Your task to perform on an android device: Add "alienware aurora" to the cart on bestbuy Image 0: 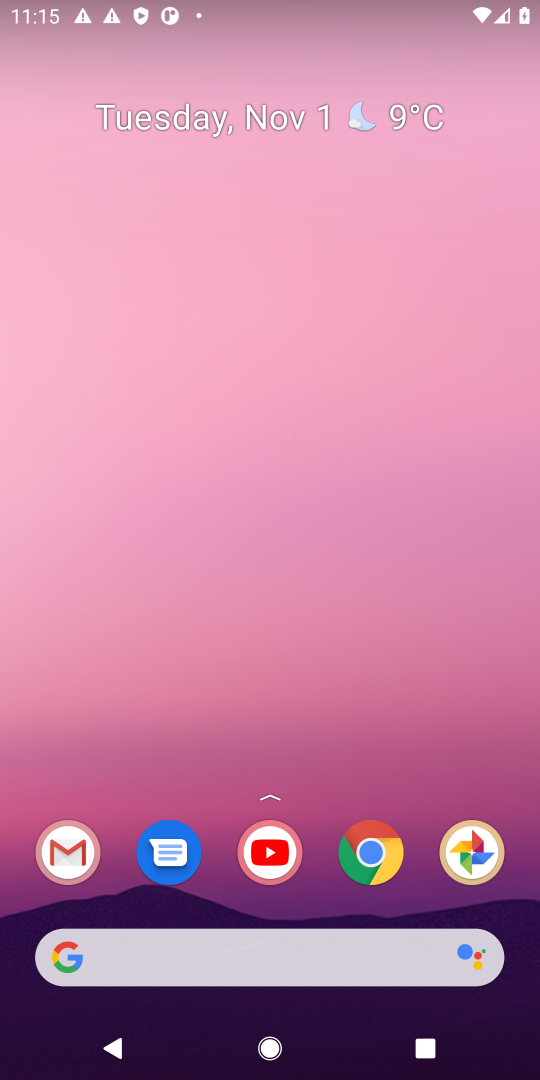
Step 0: drag from (354, 894) to (360, 76)
Your task to perform on an android device: Add "alienware aurora" to the cart on bestbuy Image 1: 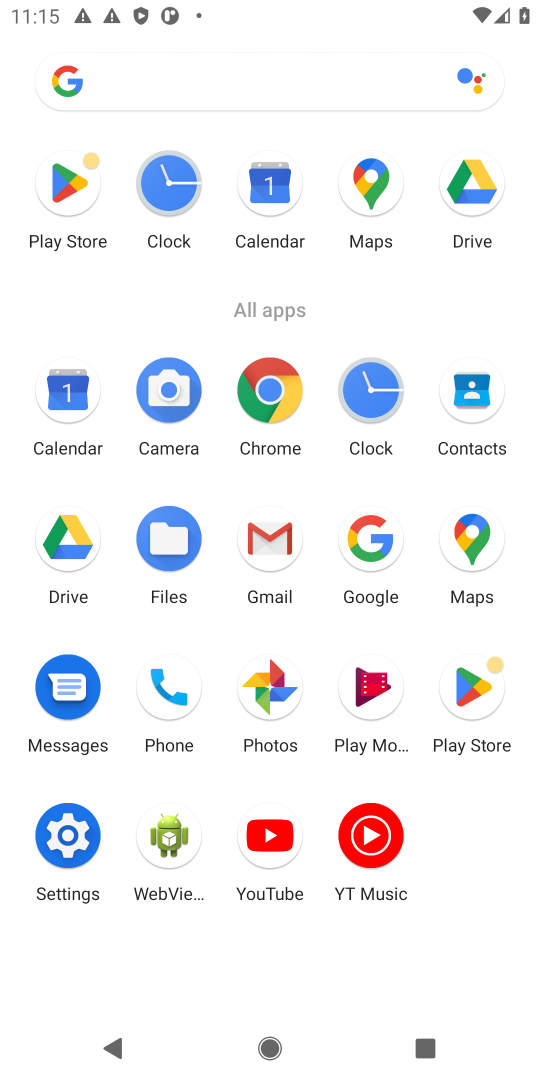
Step 1: click (367, 545)
Your task to perform on an android device: Add "alienware aurora" to the cart on bestbuy Image 2: 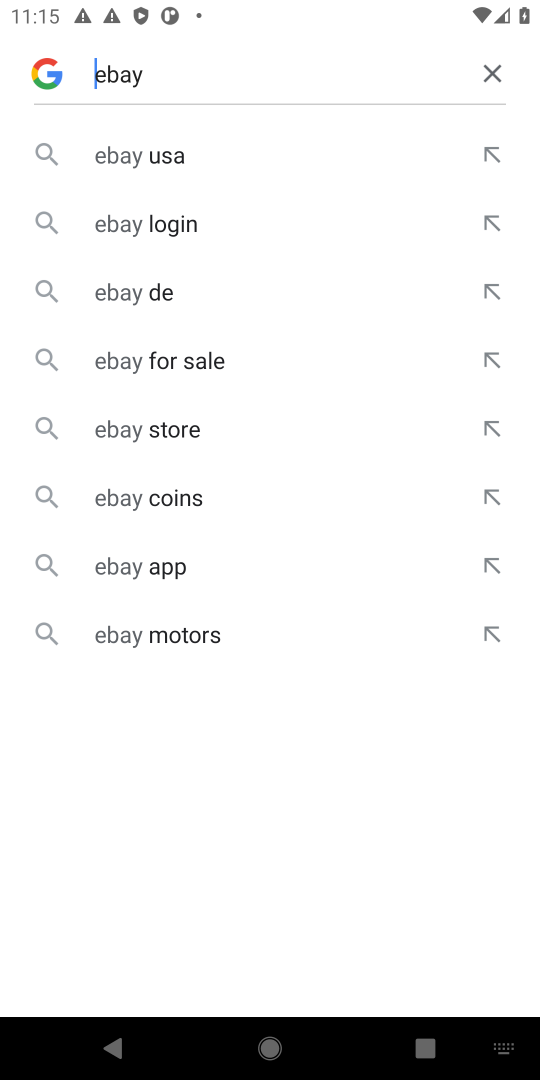
Step 2: click (169, 53)
Your task to perform on an android device: Add "alienware aurora" to the cart on bestbuy Image 3: 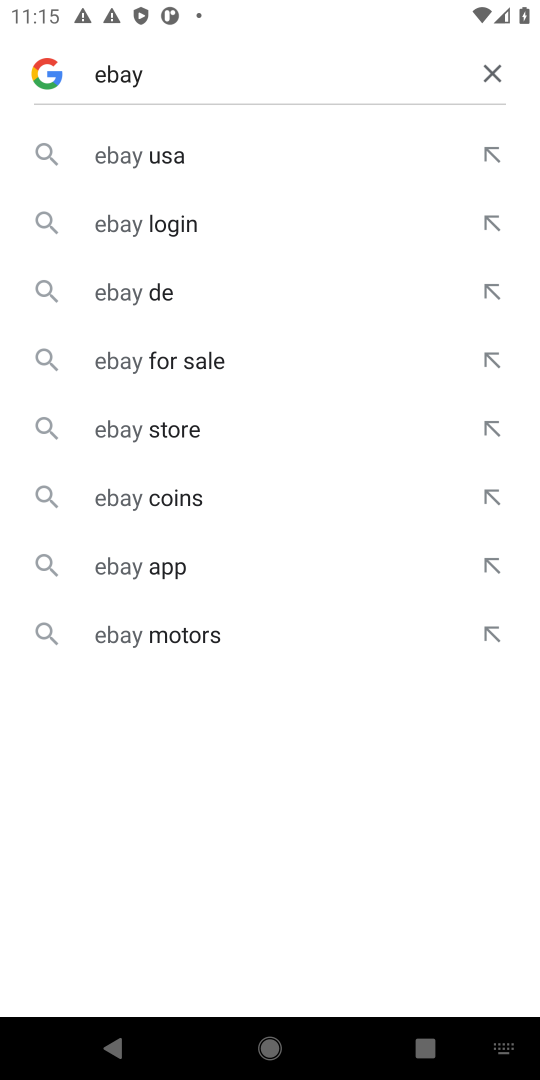
Step 3: click (488, 67)
Your task to perform on an android device: Add "alienware aurora" to the cart on bestbuy Image 4: 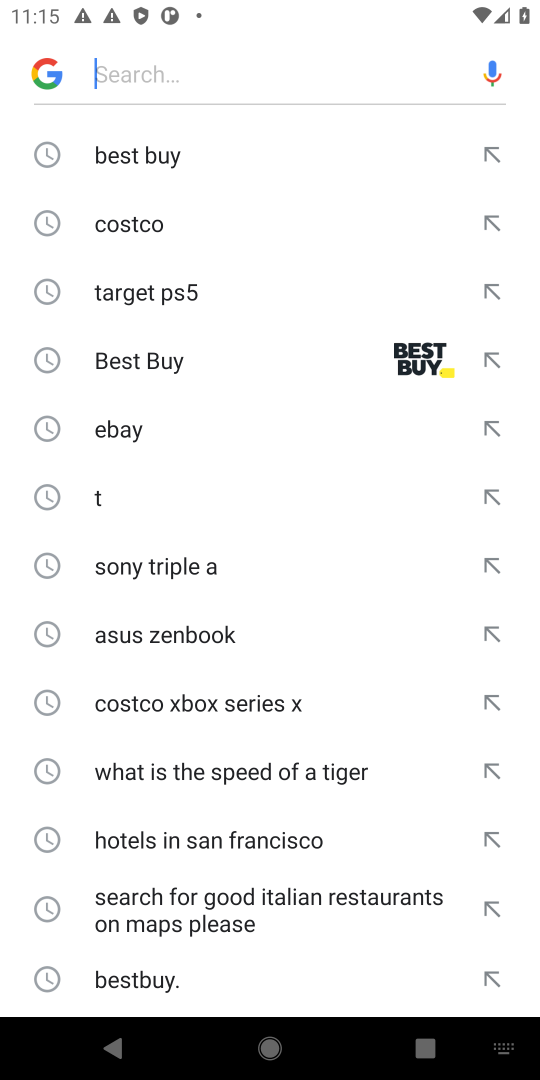
Step 4: type "bestbuy"
Your task to perform on an android device: Add "alienware aurora" to the cart on bestbuy Image 5: 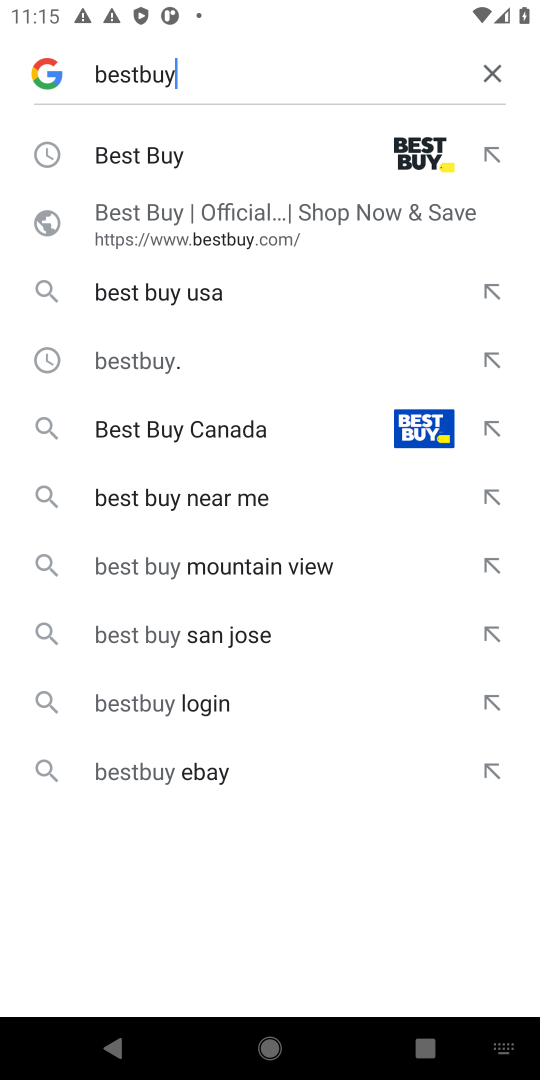
Step 5: click (156, 250)
Your task to perform on an android device: Add "alienware aurora" to the cart on bestbuy Image 6: 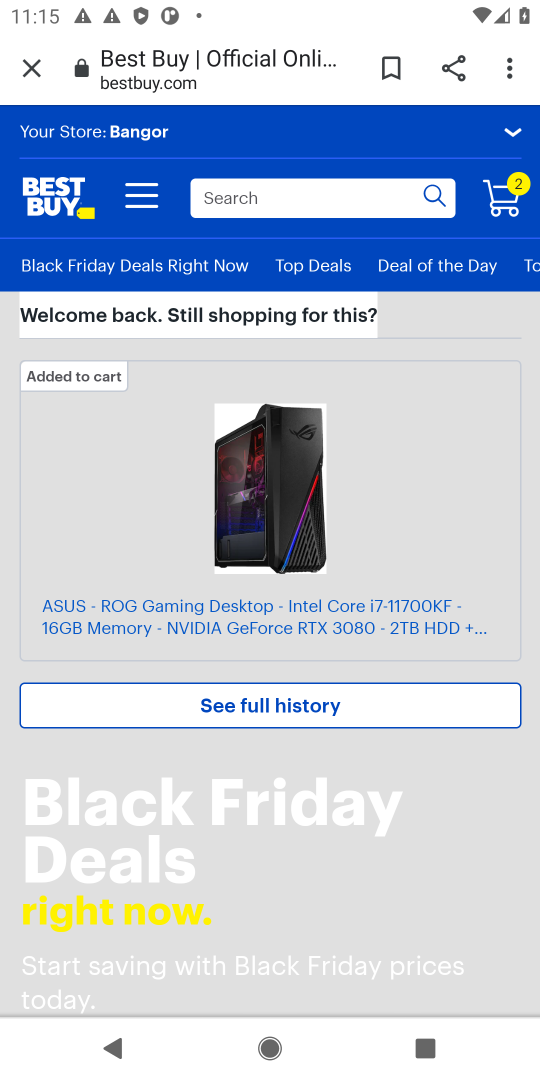
Step 6: click (335, 204)
Your task to perform on an android device: Add "alienware aurora" to the cart on bestbuy Image 7: 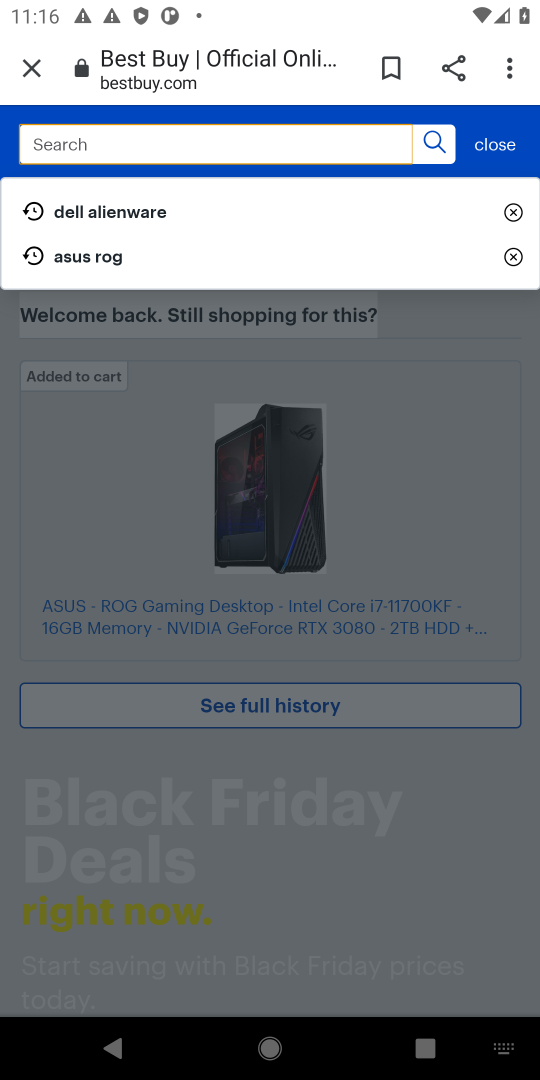
Step 7: type "alienware aurora"
Your task to perform on an android device: Add "alienware aurora" to the cart on bestbuy Image 8: 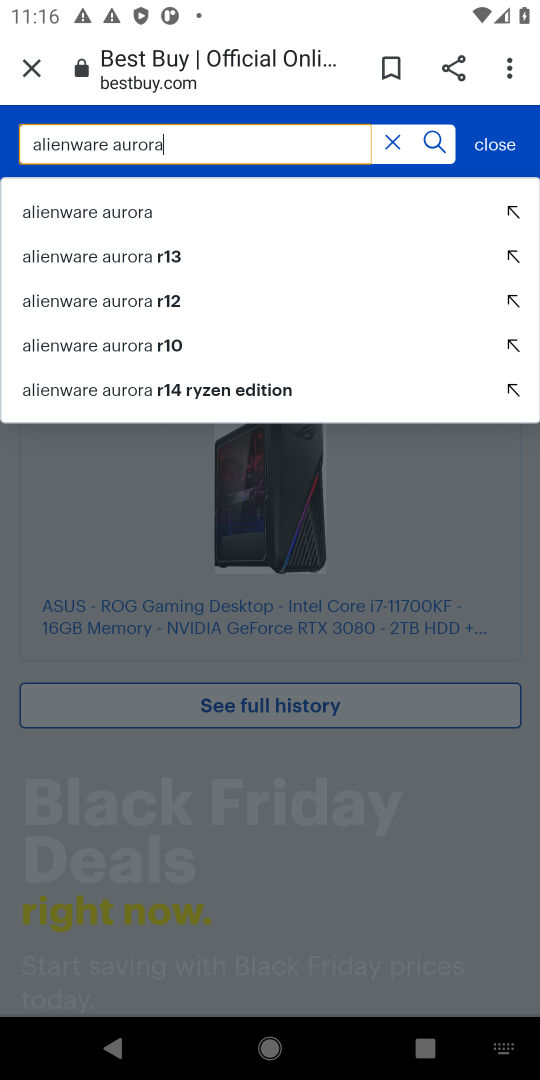
Step 8: click (206, 209)
Your task to perform on an android device: Add "alienware aurora" to the cart on bestbuy Image 9: 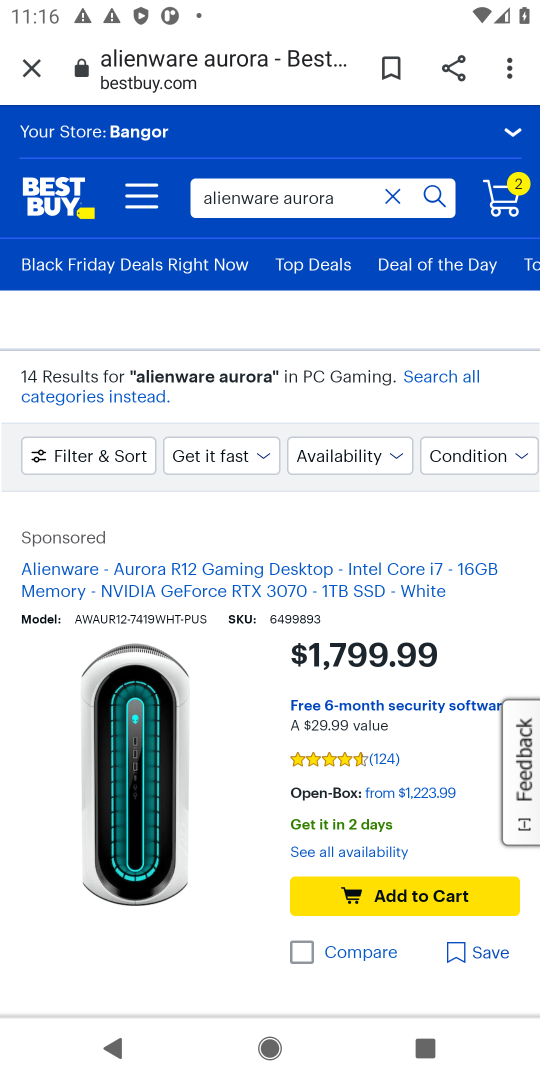
Step 9: click (357, 888)
Your task to perform on an android device: Add "alienware aurora" to the cart on bestbuy Image 10: 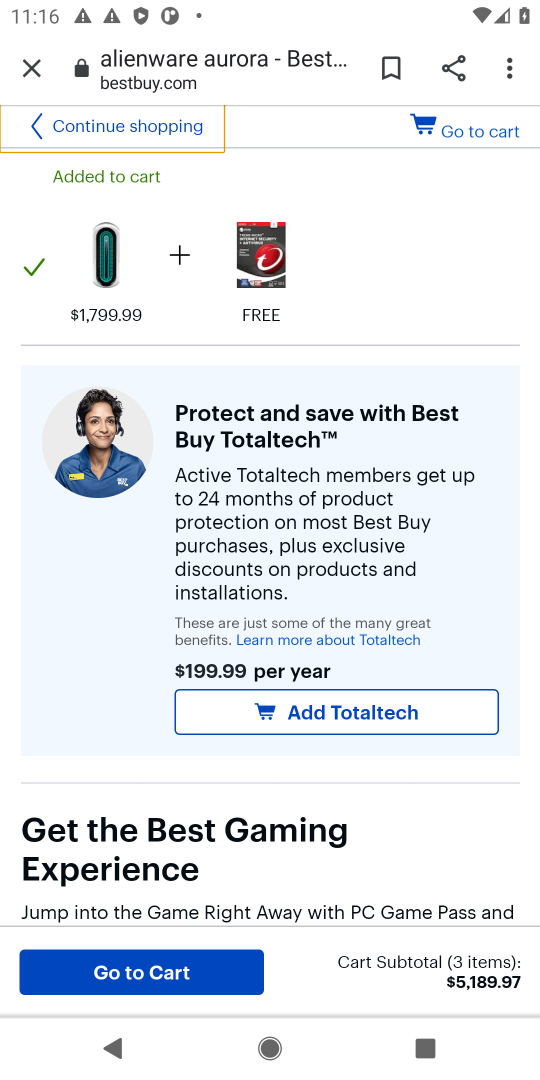
Step 10: task complete